Your task to perform on an android device: Show me recent news Image 0: 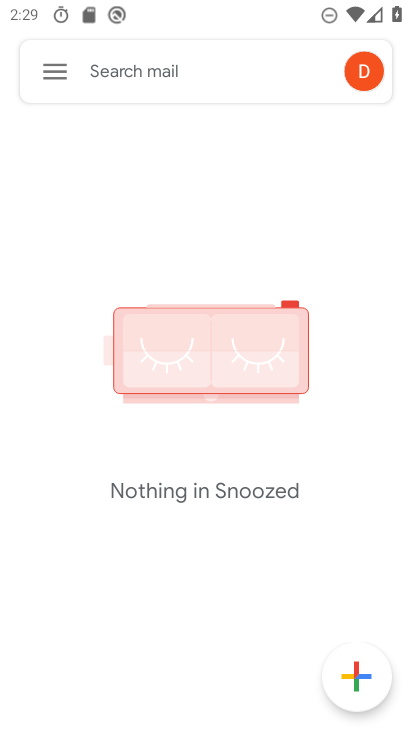
Step 0: press home button
Your task to perform on an android device: Show me recent news Image 1: 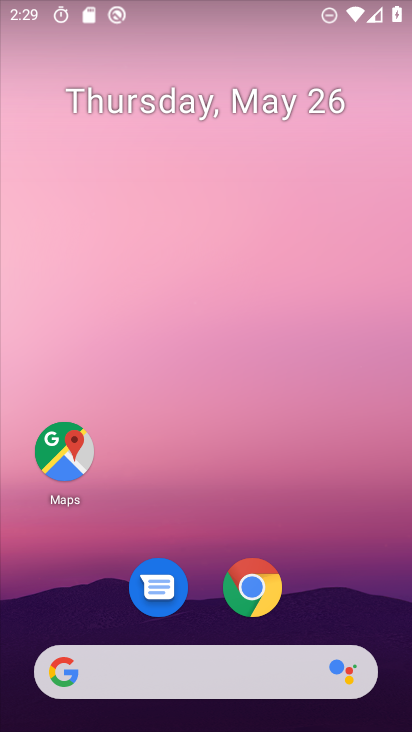
Step 1: click (258, 583)
Your task to perform on an android device: Show me recent news Image 2: 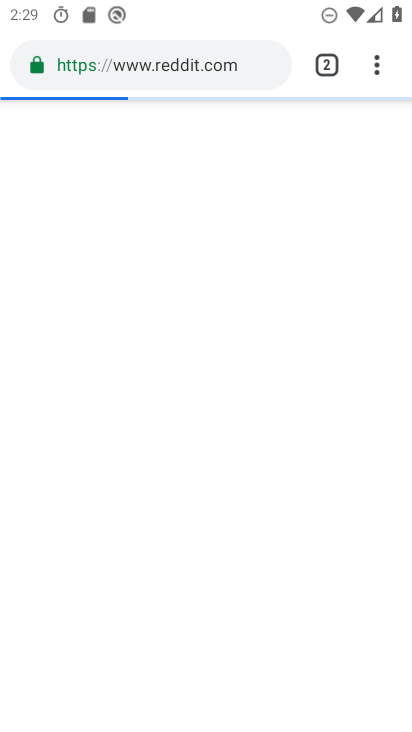
Step 2: click (210, 65)
Your task to perform on an android device: Show me recent news Image 3: 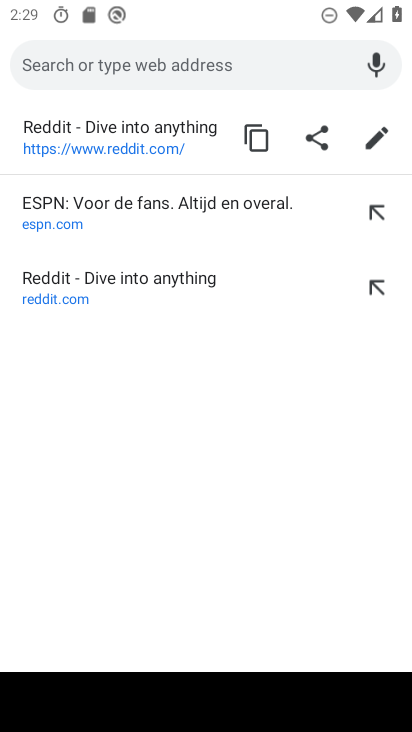
Step 3: type "news"
Your task to perform on an android device: Show me recent news Image 4: 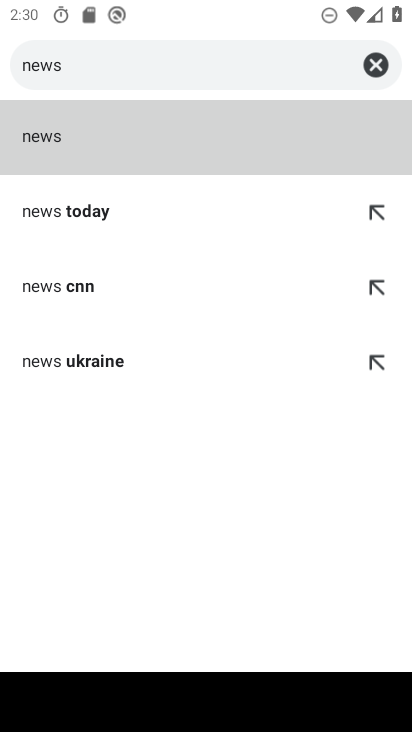
Step 4: click (49, 137)
Your task to perform on an android device: Show me recent news Image 5: 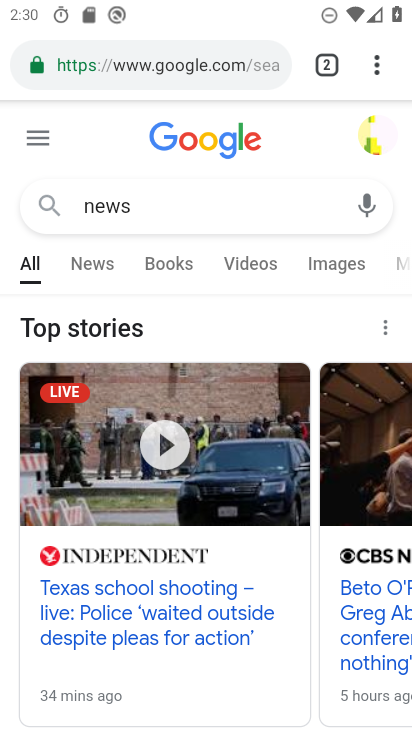
Step 5: click (105, 255)
Your task to perform on an android device: Show me recent news Image 6: 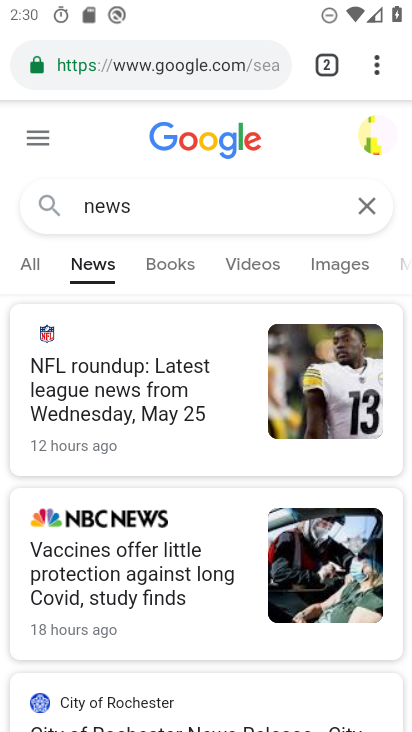
Step 6: task complete